Your task to perform on an android device: Clear all items from cart on newegg. Image 0: 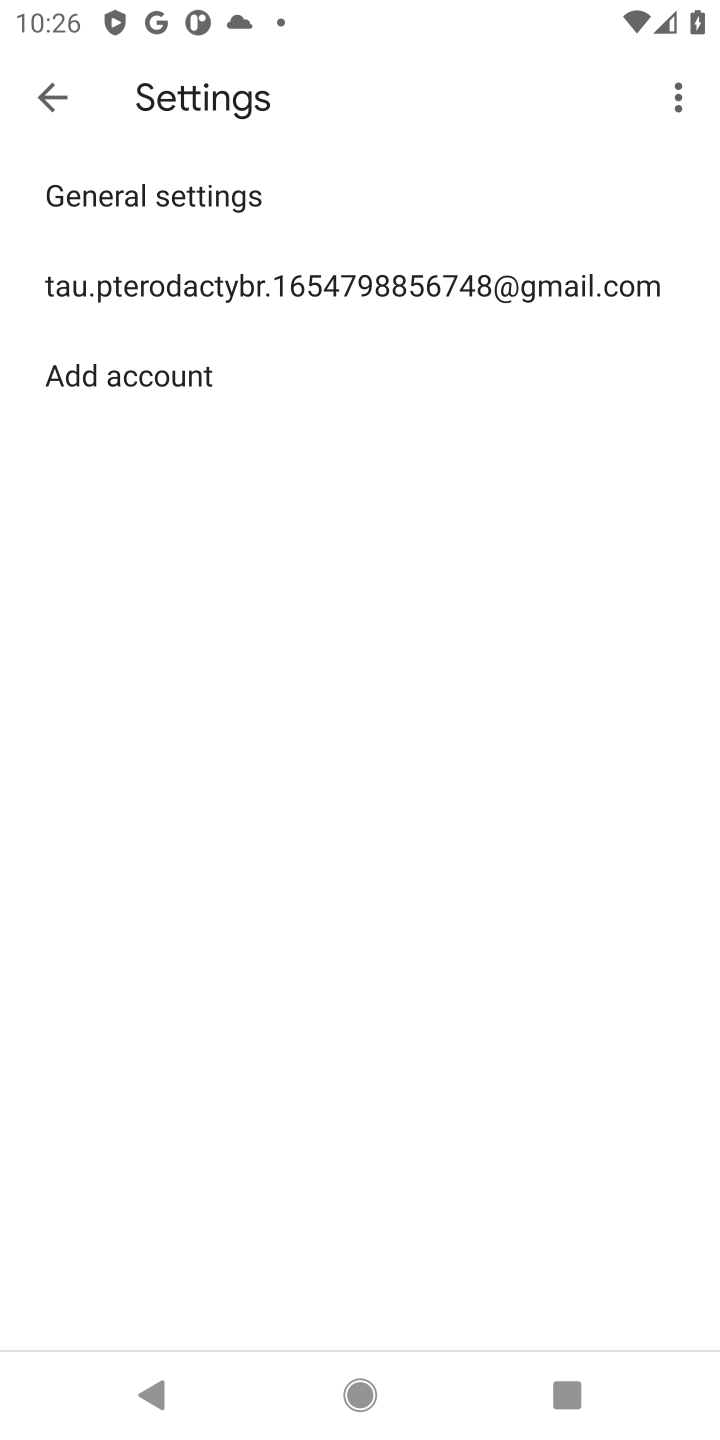
Step 0: press home button
Your task to perform on an android device: Clear all items from cart on newegg. Image 1: 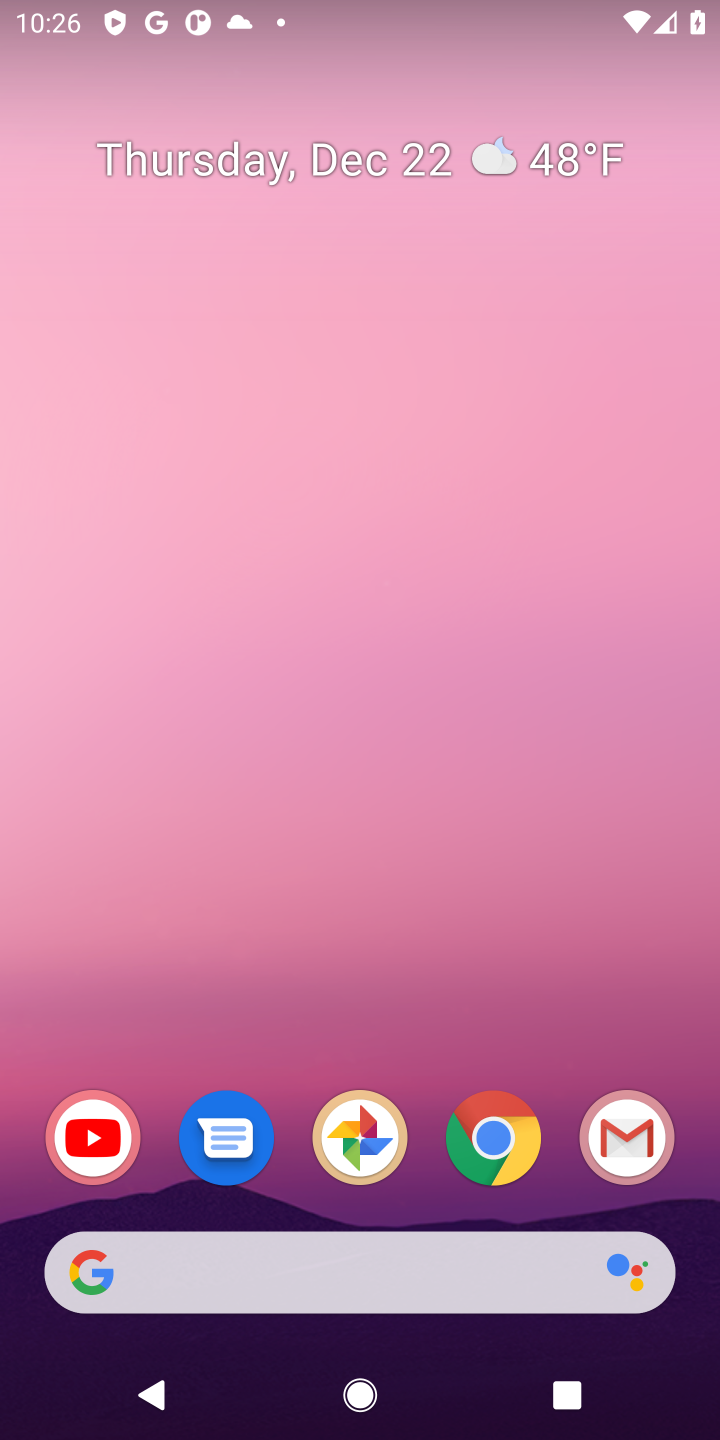
Step 1: click (483, 1143)
Your task to perform on an android device: Clear all items from cart on newegg. Image 2: 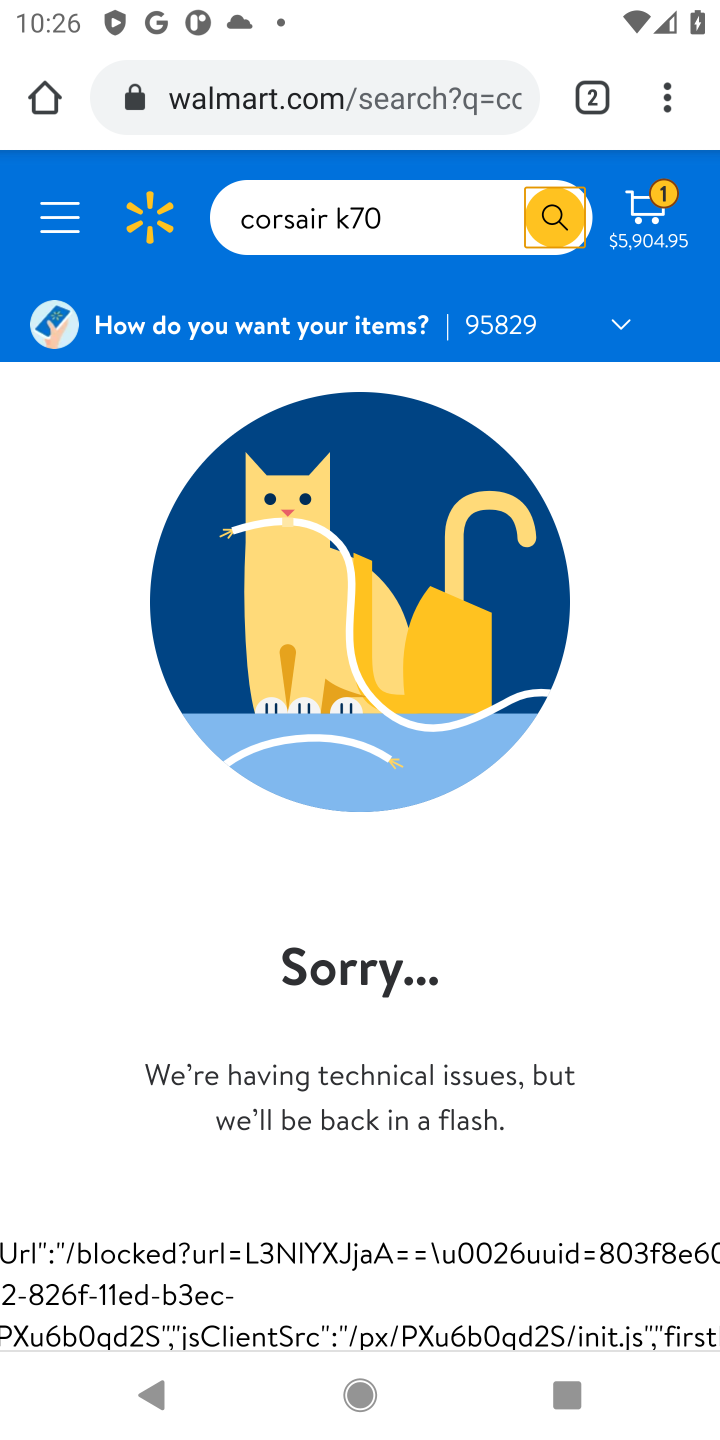
Step 2: click (344, 84)
Your task to perform on an android device: Clear all items from cart on newegg. Image 3: 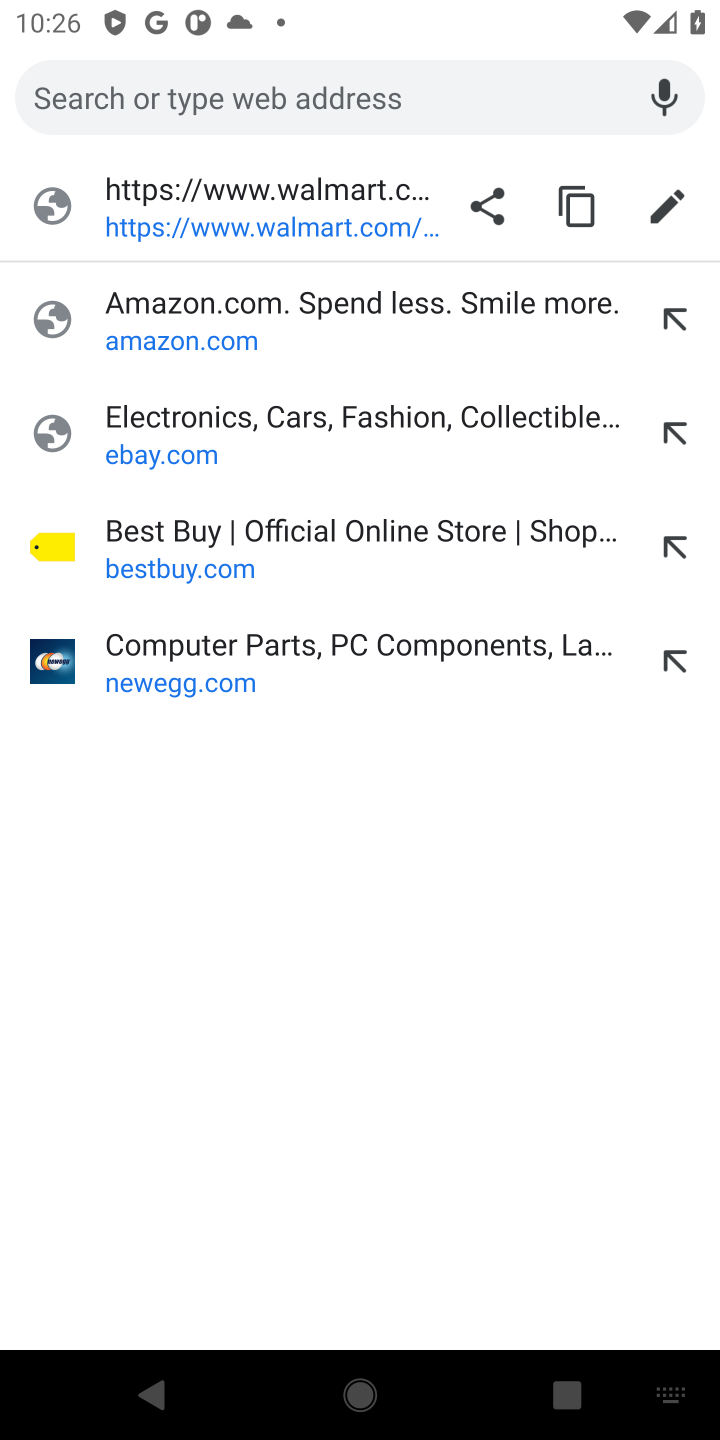
Step 3: type "newegg"
Your task to perform on an android device: Clear all items from cart on newegg. Image 4: 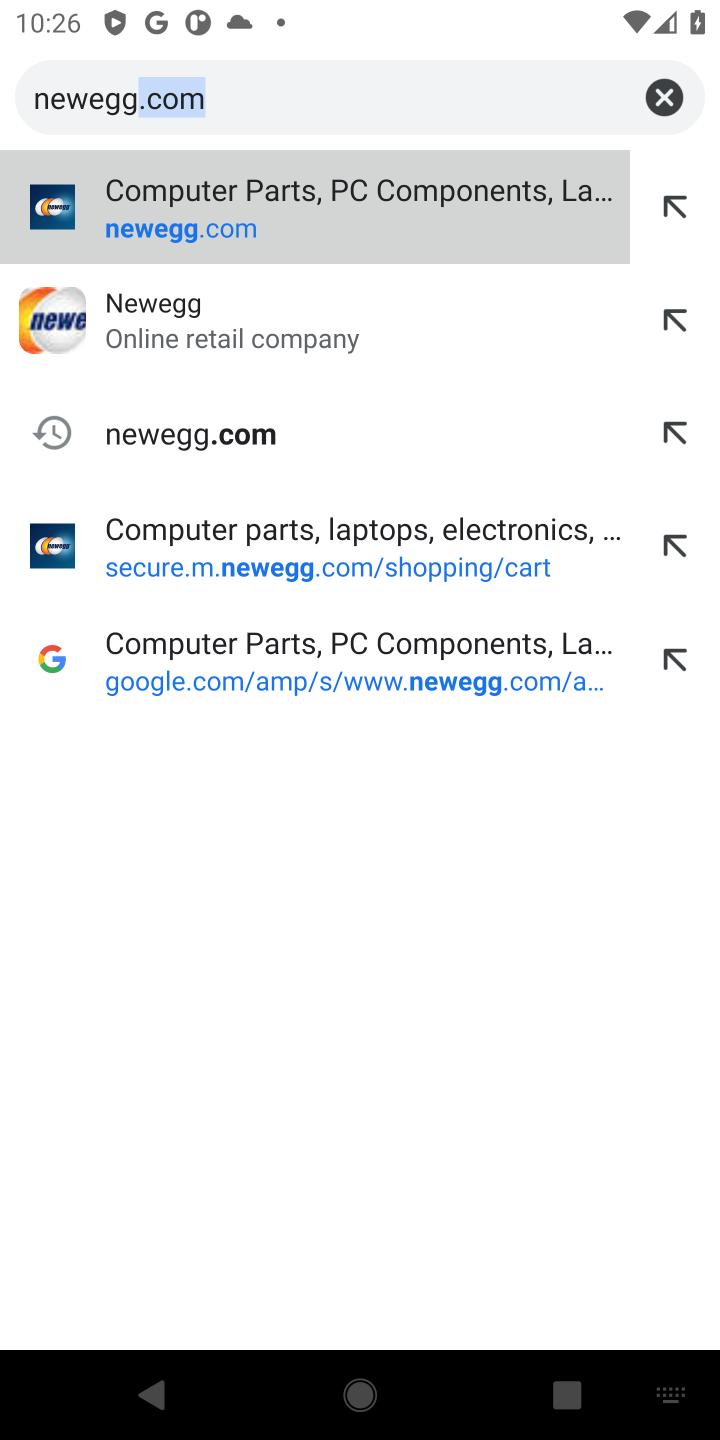
Step 4: press enter
Your task to perform on an android device: Clear all items from cart on newegg. Image 5: 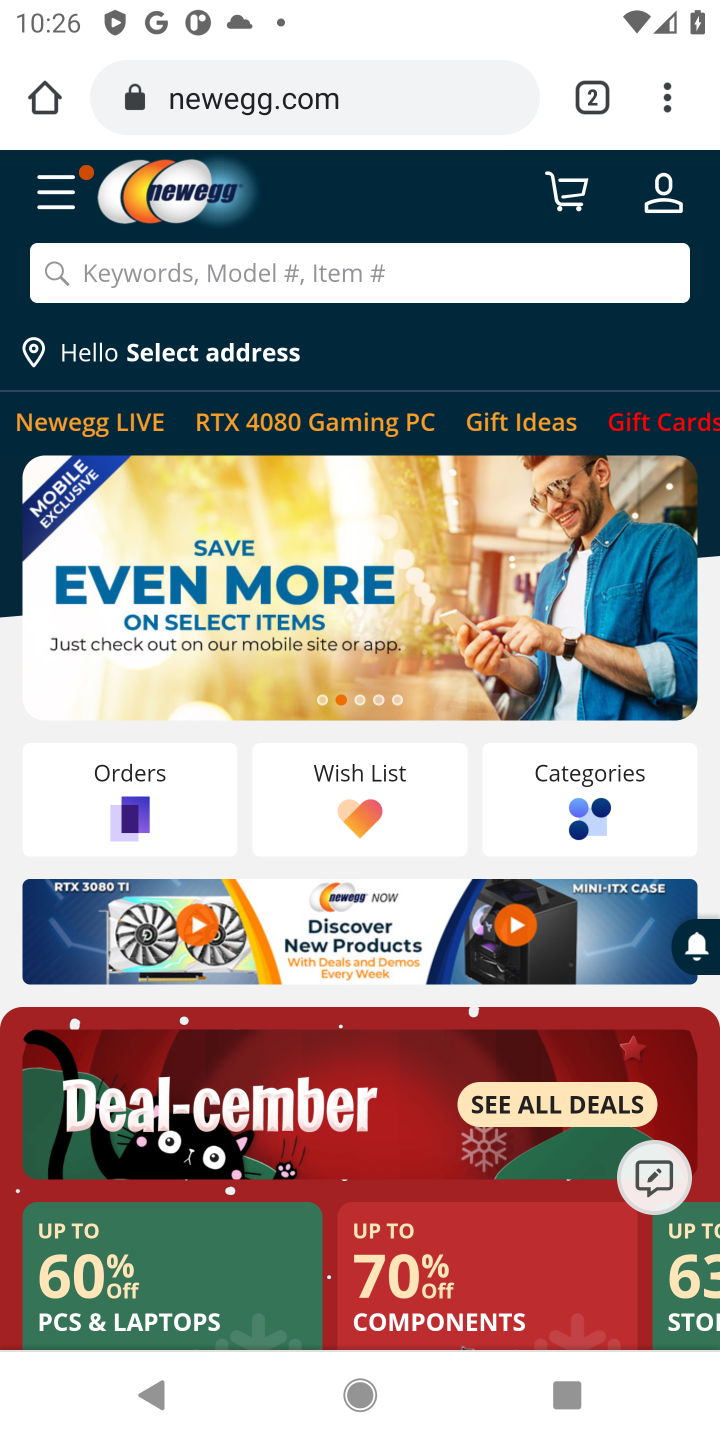
Step 5: click (565, 205)
Your task to perform on an android device: Clear all items from cart on newegg. Image 6: 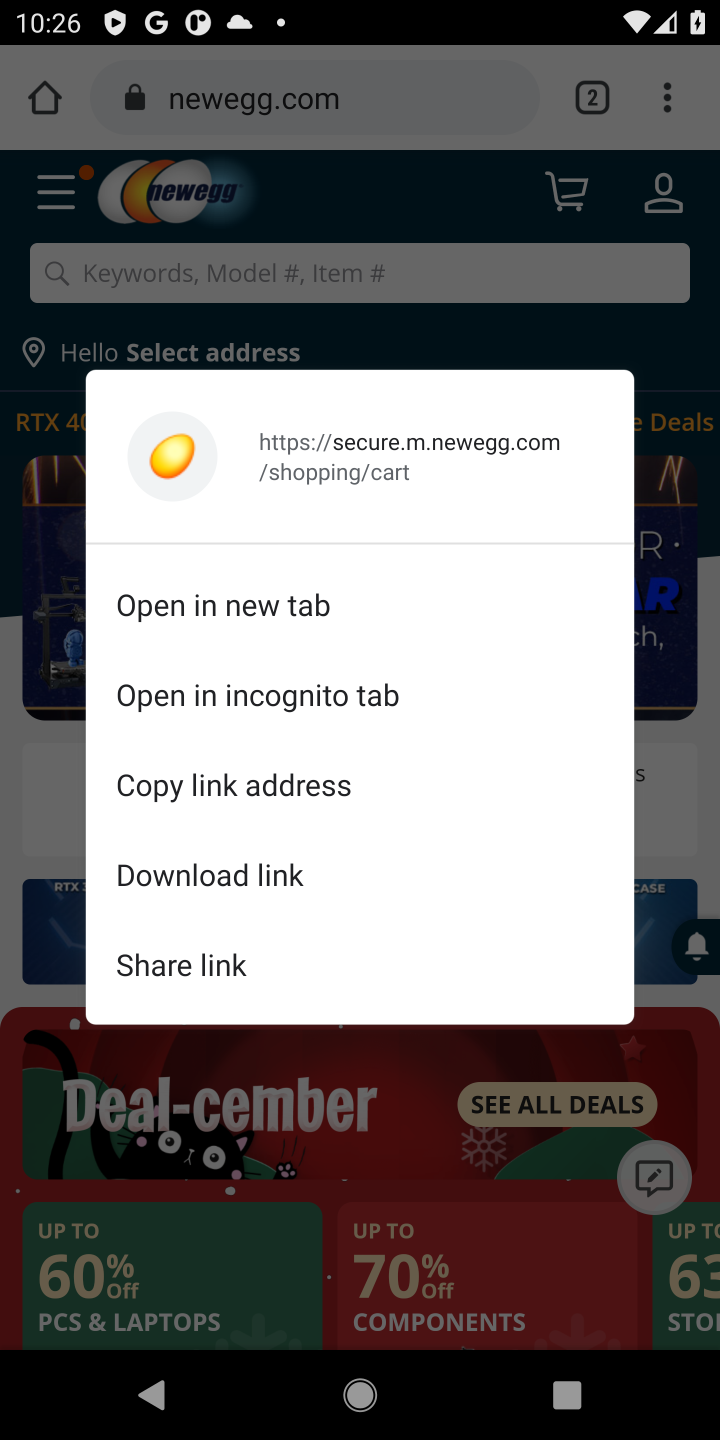
Step 6: click (552, 206)
Your task to perform on an android device: Clear all items from cart on newegg. Image 7: 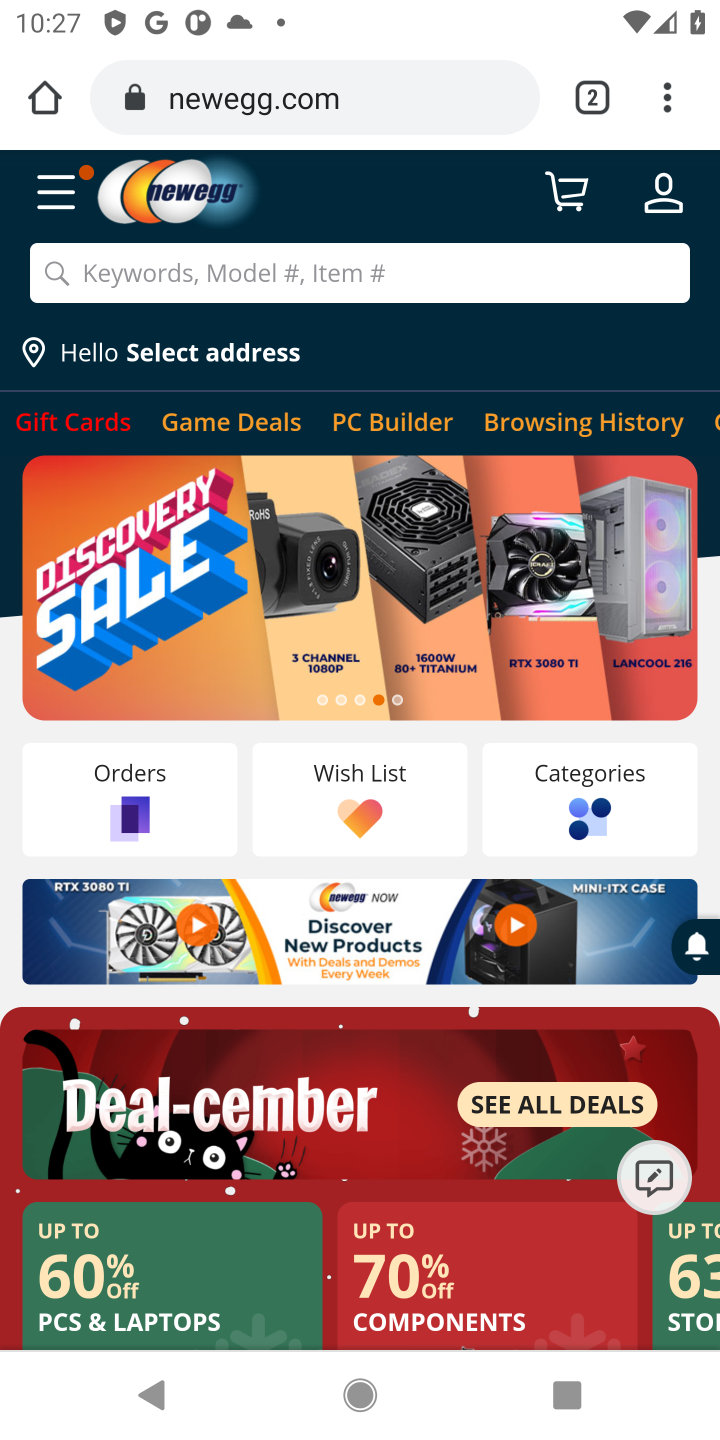
Step 7: click (571, 189)
Your task to perform on an android device: Clear all items from cart on newegg. Image 8: 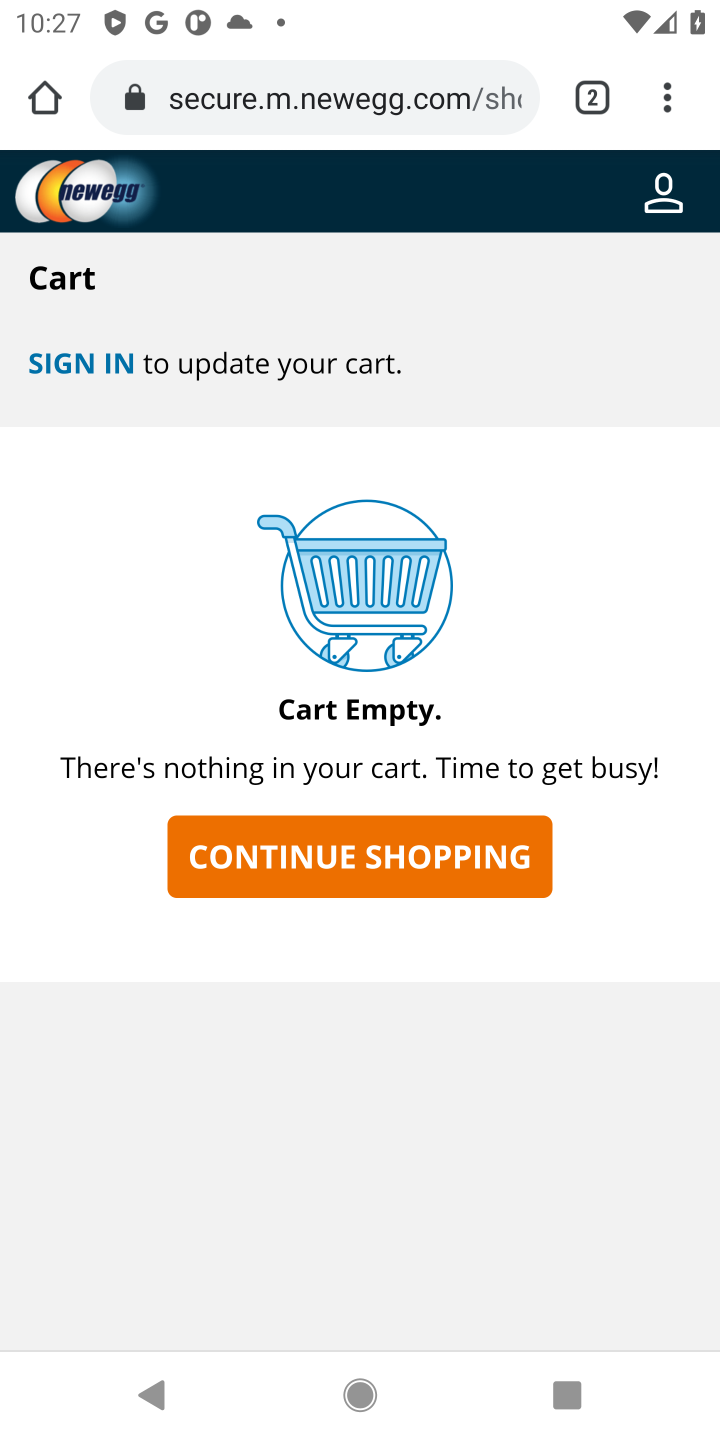
Step 8: task complete